Your task to perform on an android device: turn off translation in the chrome app Image 0: 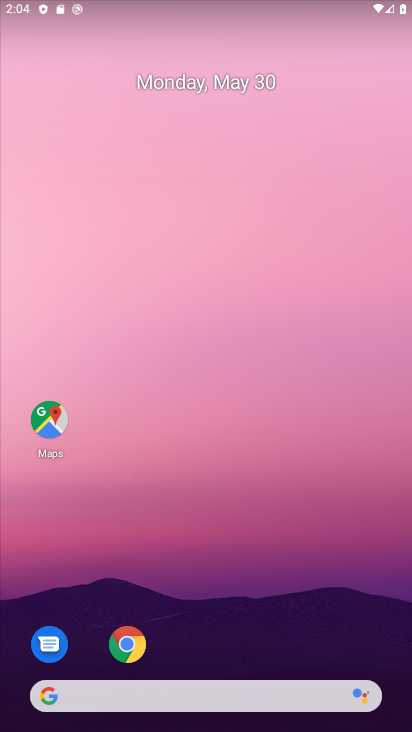
Step 0: click (136, 648)
Your task to perform on an android device: turn off translation in the chrome app Image 1: 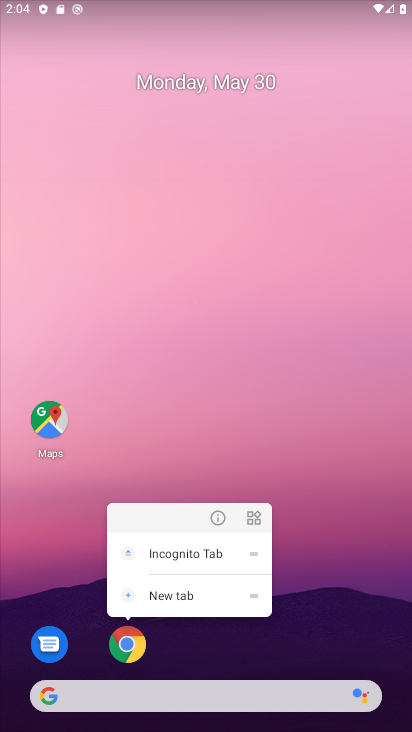
Step 1: click (124, 658)
Your task to perform on an android device: turn off translation in the chrome app Image 2: 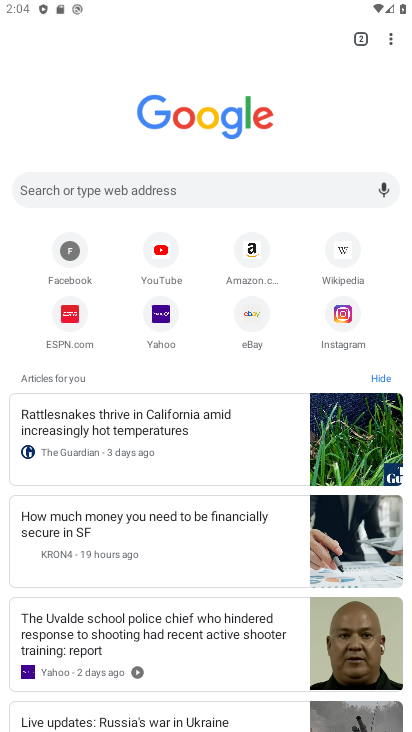
Step 2: drag from (385, 43) to (258, 331)
Your task to perform on an android device: turn off translation in the chrome app Image 3: 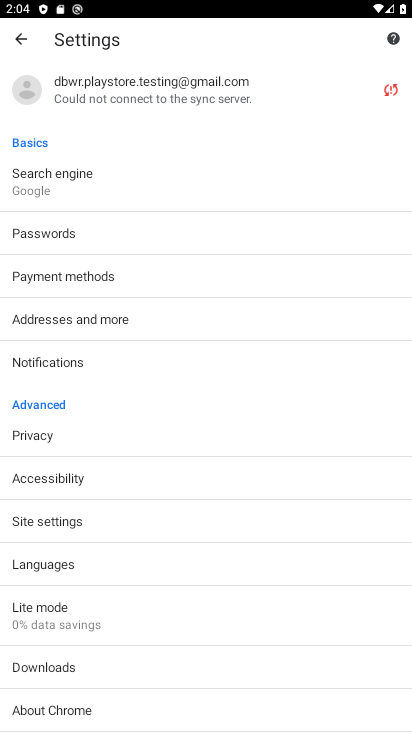
Step 3: click (58, 563)
Your task to perform on an android device: turn off translation in the chrome app Image 4: 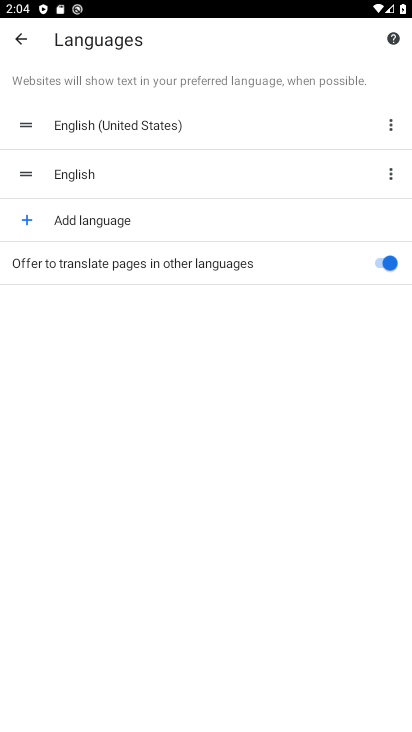
Step 4: click (399, 263)
Your task to perform on an android device: turn off translation in the chrome app Image 5: 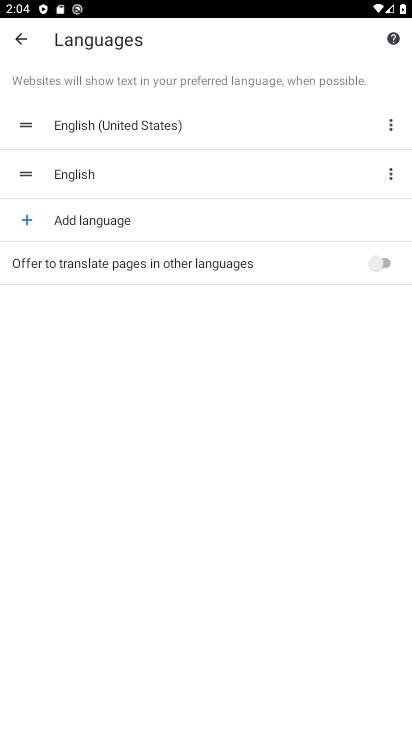
Step 5: task complete